Your task to perform on an android device: Go to privacy settings Image 0: 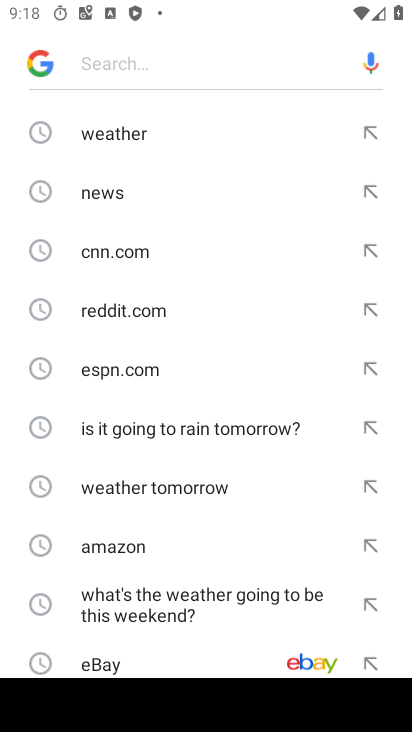
Step 0: press home button
Your task to perform on an android device: Go to privacy settings Image 1: 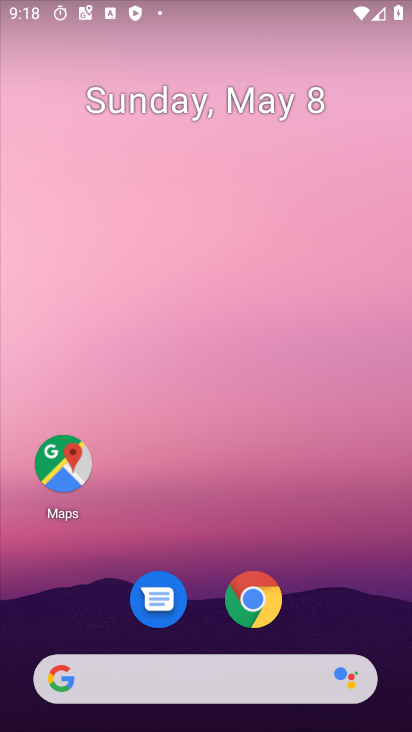
Step 1: drag from (215, 627) to (204, 5)
Your task to perform on an android device: Go to privacy settings Image 2: 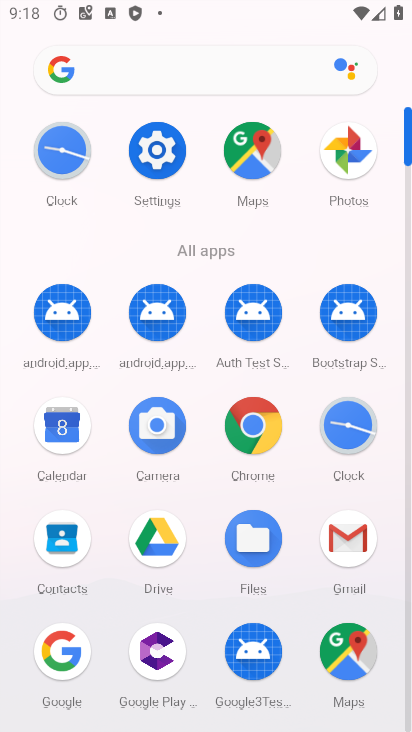
Step 2: click (168, 150)
Your task to perform on an android device: Go to privacy settings Image 3: 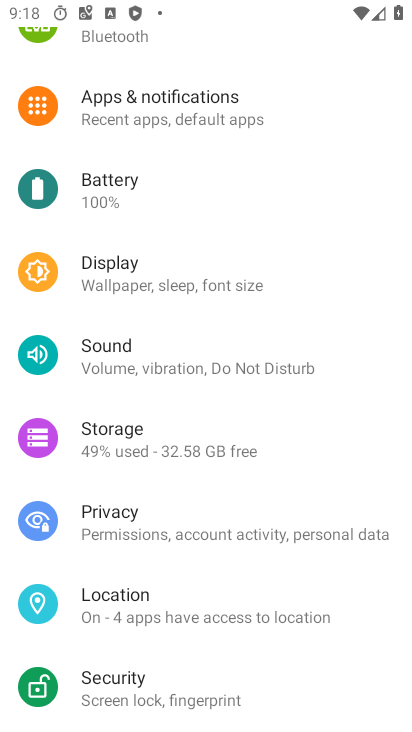
Step 3: click (191, 521)
Your task to perform on an android device: Go to privacy settings Image 4: 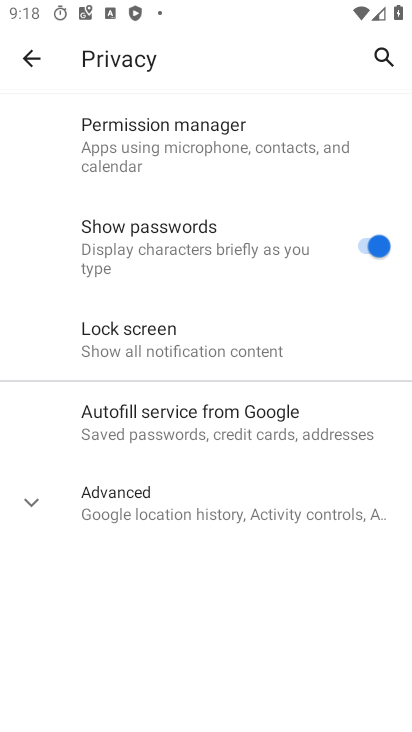
Step 4: task complete